Your task to perform on an android device: visit the assistant section in the google photos Image 0: 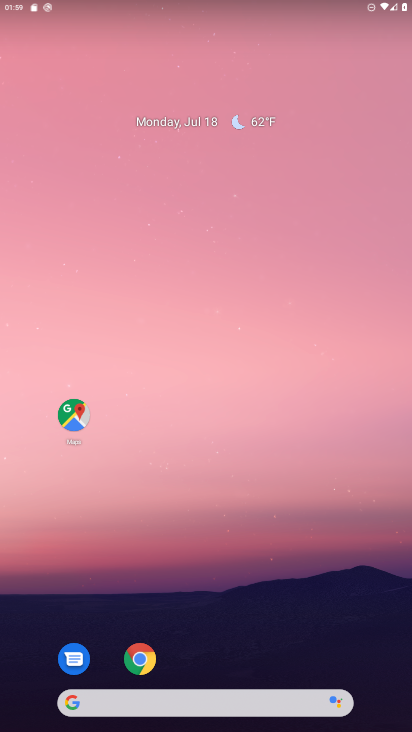
Step 0: drag from (283, 552) to (266, 112)
Your task to perform on an android device: visit the assistant section in the google photos Image 1: 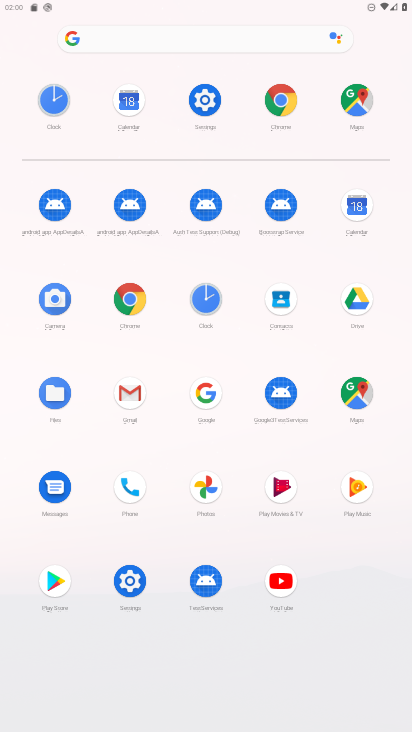
Step 1: click (216, 484)
Your task to perform on an android device: visit the assistant section in the google photos Image 2: 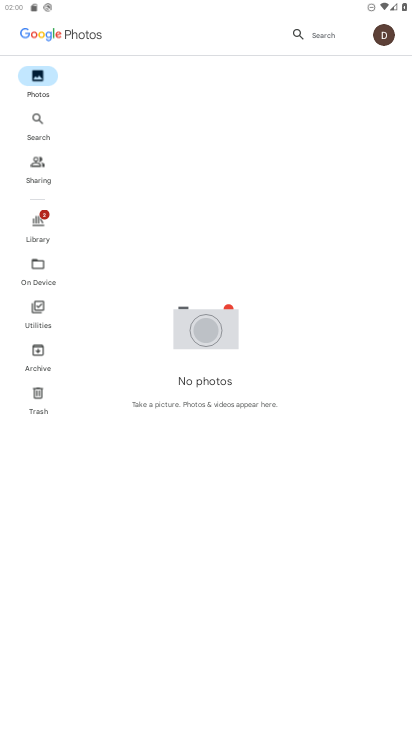
Step 2: click (47, 215)
Your task to perform on an android device: visit the assistant section in the google photos Image 3: 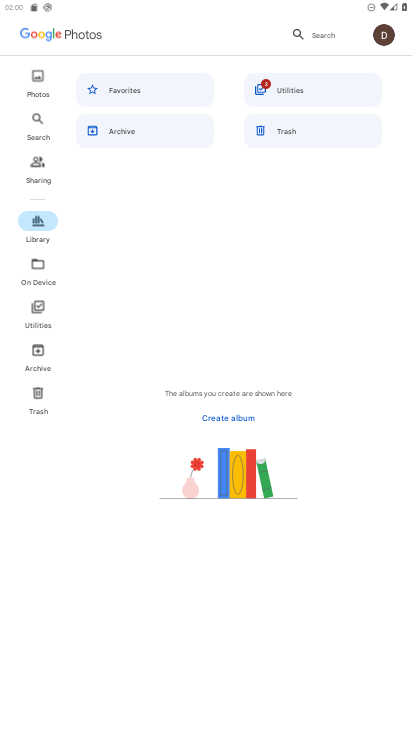
Step 3: task complete